Your task to perform on an android device: see sites visited before in the chrome app Image 0: 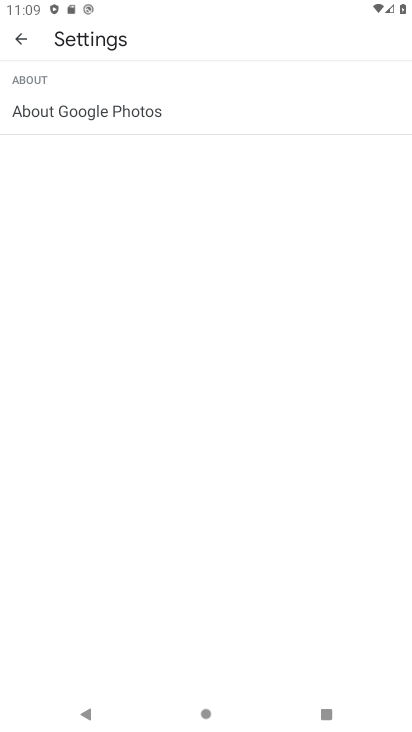
Step 0: press home button
Your task to perform on an android device: see sites visited before in the chrome app Image 1: 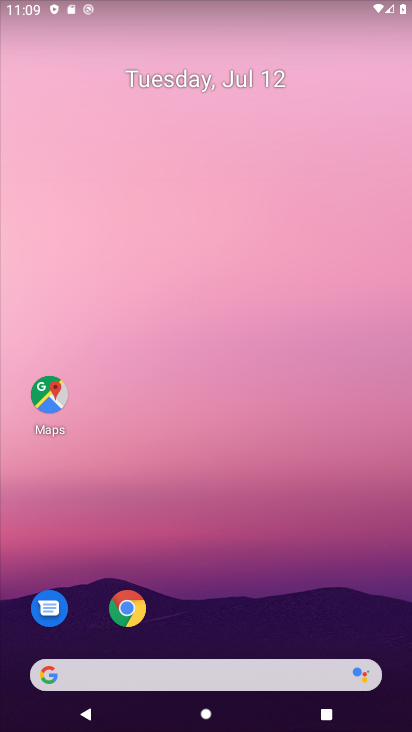
Step 1: click (124, 612)
Your task to perform on an android device: see sites visited before in the chrome app Image 2: 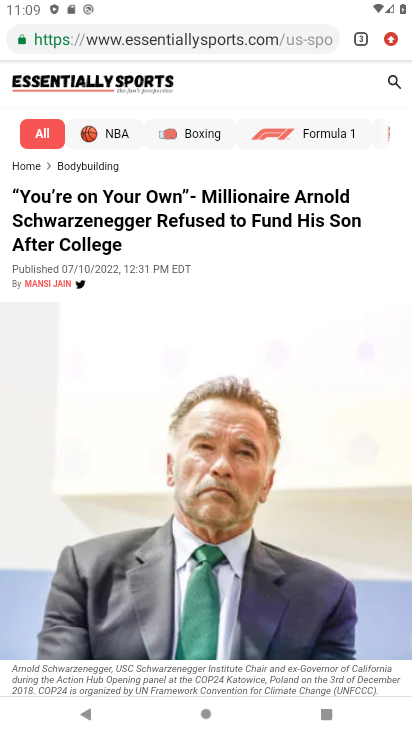
Step 2: click (391, 39)
Your task to perform on an android device: see sites visited before in the chrome app Image 3: 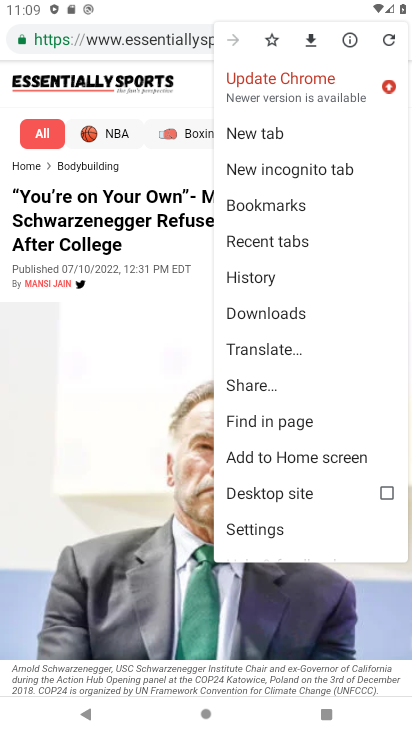
Step 3: click (257, 238)
Your task to perform on an android device: see sites visited before in the chrome app Image 4: 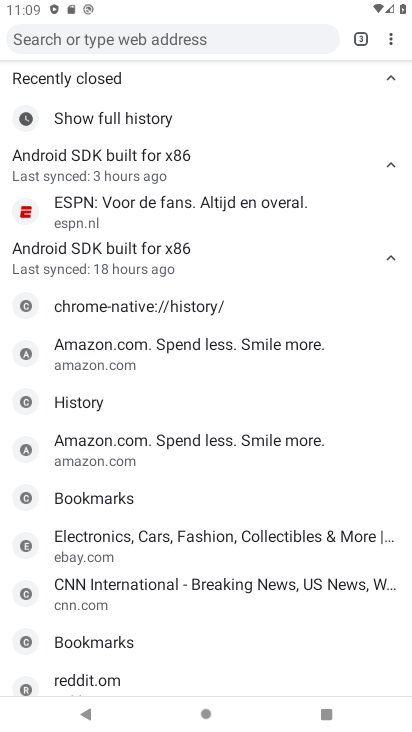
Step 4: task complete